Your task to perform on an android device: Go to Yahoo.com Image 0: 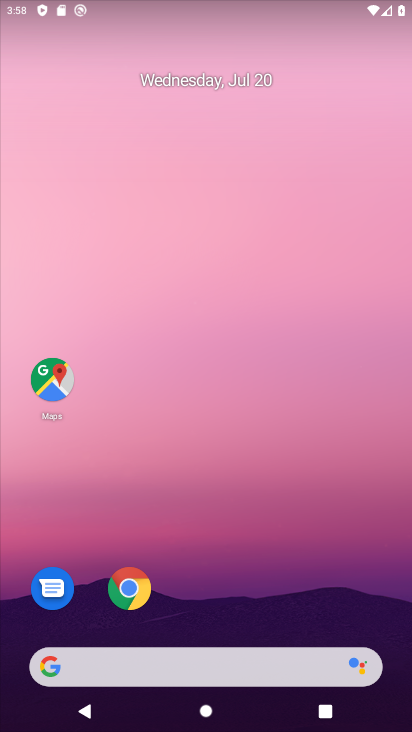
Step 0: drag from (221, 617) to (276, 65)
Your task to perform on an android device: Go to Yahoo.com Image 1: 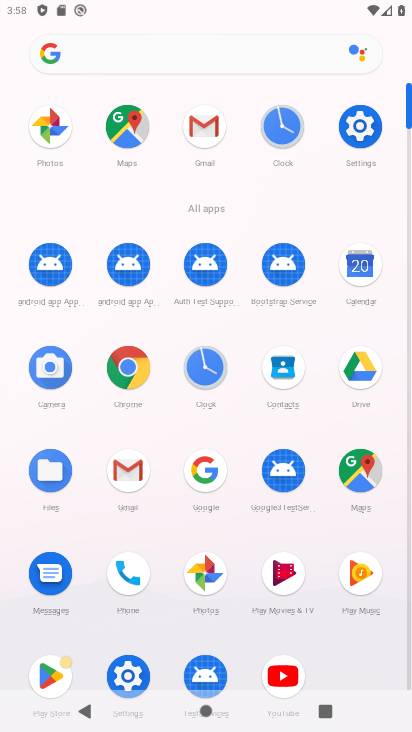
Step 1: click (125, 360)
Your task to perform on an android device: Go to Yahoo.com Image 2: 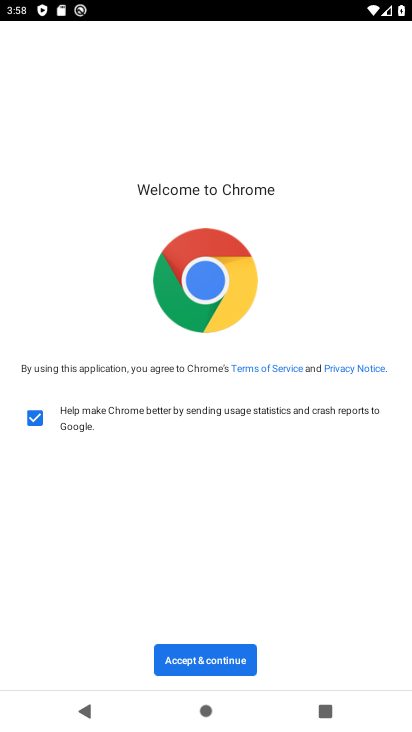
Step 2: click (207, 656)
Your task to perform on an android device: Go to Yahoo.com Image 3: 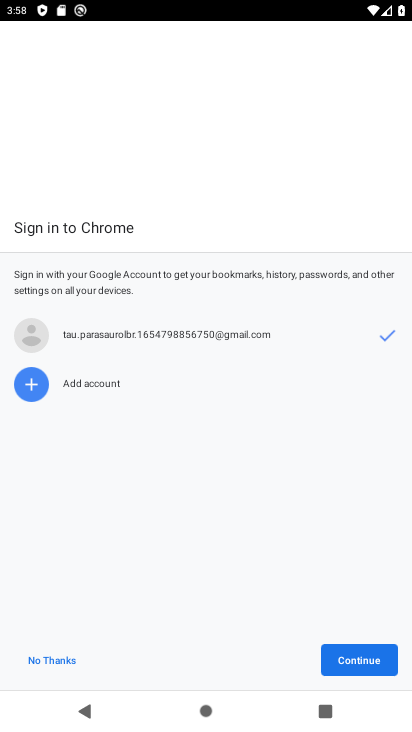
Step 3: click (343, 649)
Your task to perform on an android device: Go to Yahoo.com Image 4: 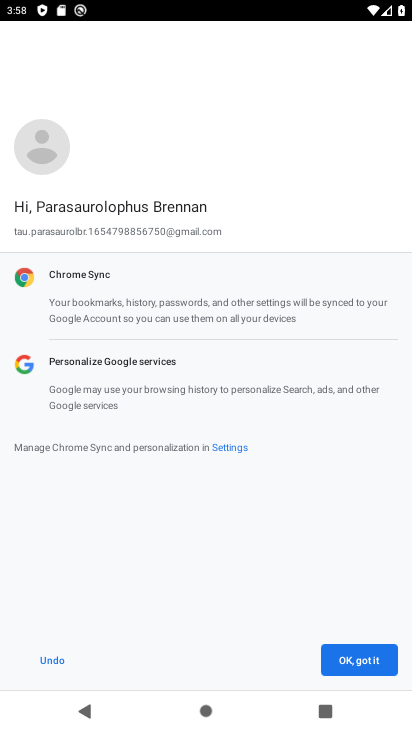
Step 4: click (373, 662)
Your task to perform on an android device: Go to Yahoo.com Image 5: 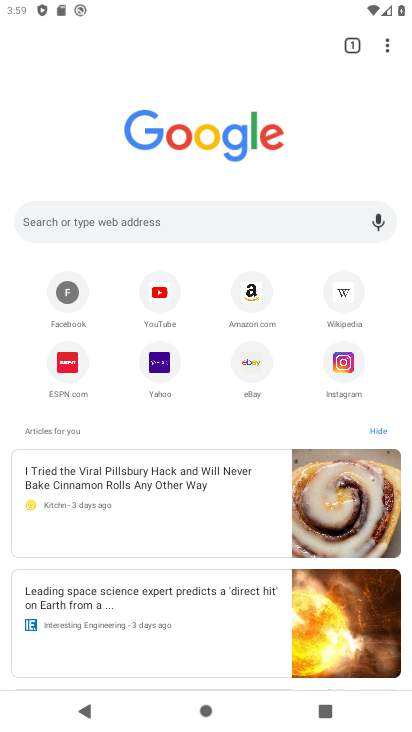
Step 5: click (161, 358)
Your task to perform on an android device: Go to Yahoo.com Image 6: 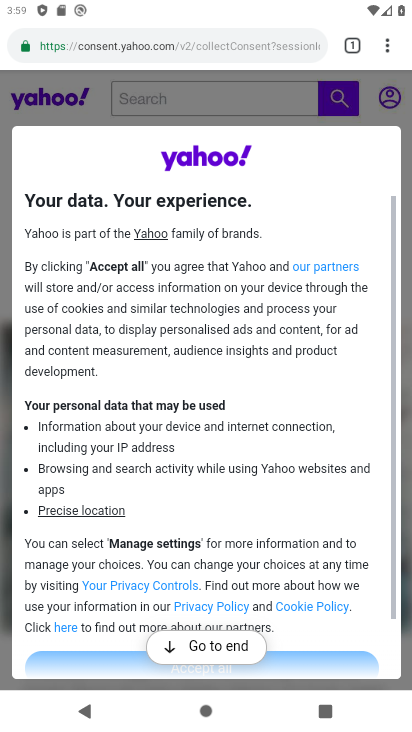
Step 6: click (215, 664)
Your task to perform on an android device: Go to Yahoo.com Image 7: 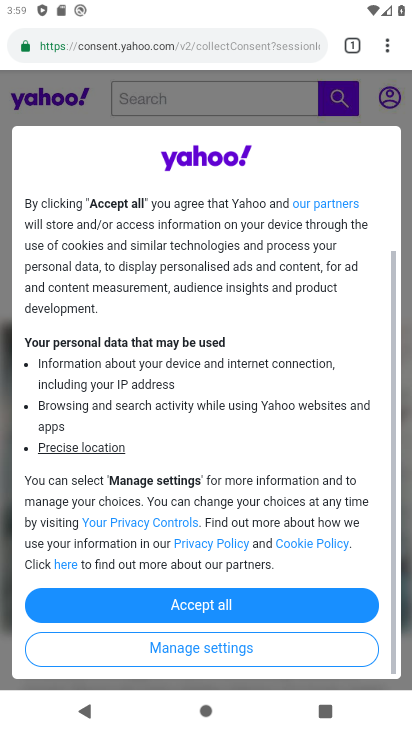
Step 7: click (210, 605)
Your task to perform on an android device: Go to Yahoo.com Image 8: 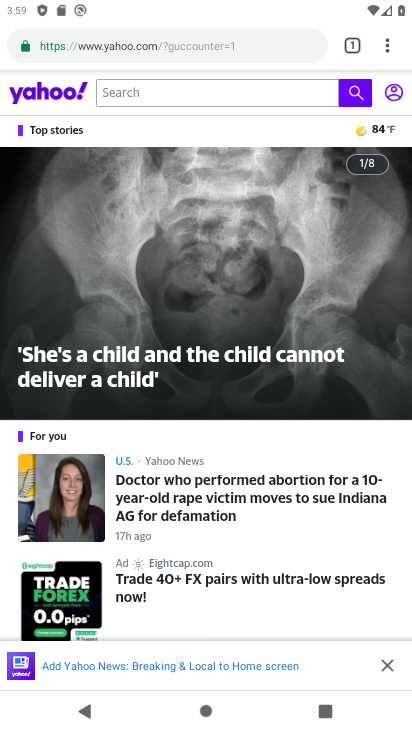
Step 8: task complete